Your task to perform on an android device: Open the Play Movies app and select the watchlist tab. Image 0: 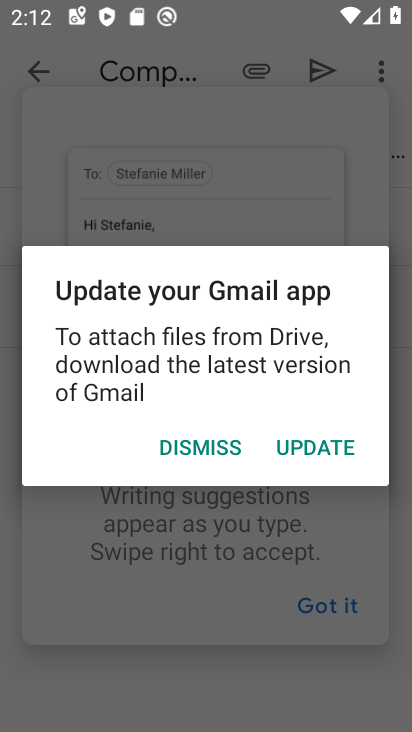
Step 0: press home button
Your task to perform on an android device: Open the Play Movies app and select the watchlist tab. Image 1: 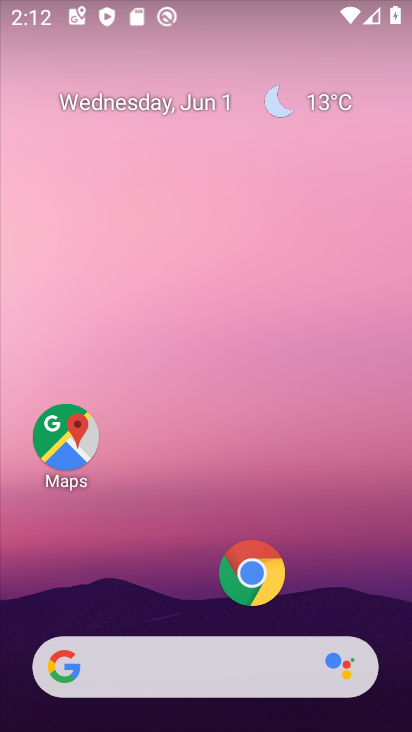
Step 1: drag from (165, 615) to (63, 19)
Your task to perform on an android device: Open the Play Movies app and select the watchlist tab. Image 2: 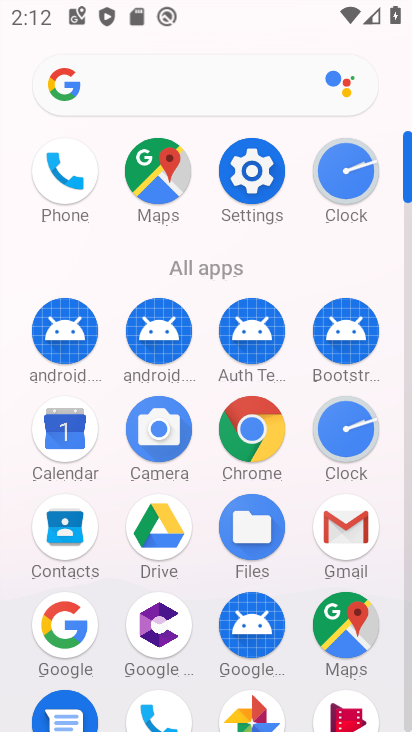
Step 2: click (347, 703)
Your task to perform on an android device: Open the Play Movies app and select the watchlist tab. Image 3: 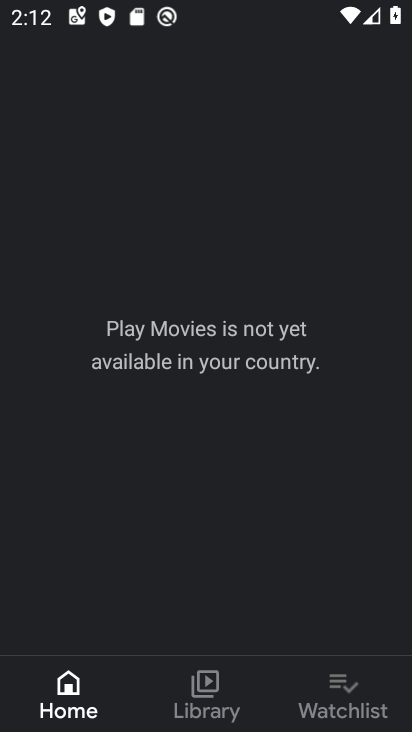
Step 3: click (329, 697)
Your task to perform on an android device: Open the Play Movies app and select the watchlist tab. Image 4: 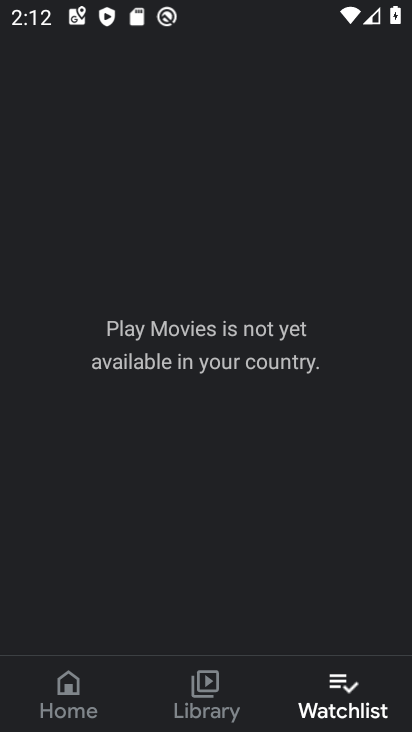
Step 4: task complete